Your task to perform on an android device: see creations saved in the google photos Image 0: 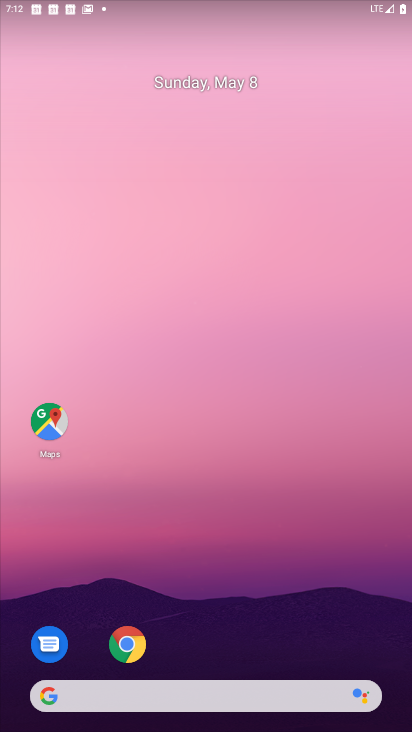
Step 0: drag from (364, 648) to (261, 179)
Your task to perform on an android device: see creations saved in the google photos Image 1: 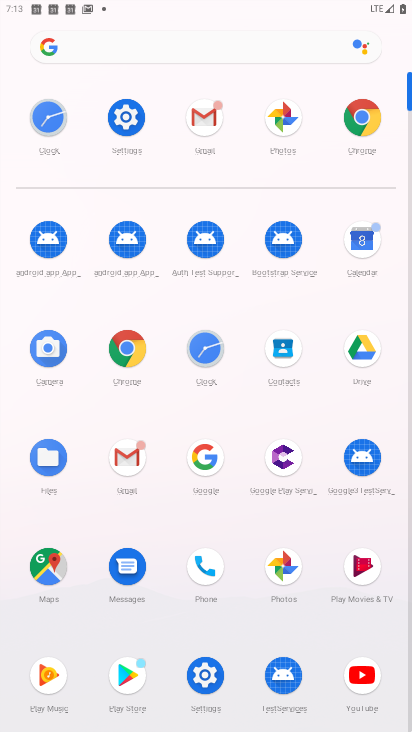
Step 1: click (285, 569)
Your task to perform on an android device: see creations saved in the google photos Image 2: 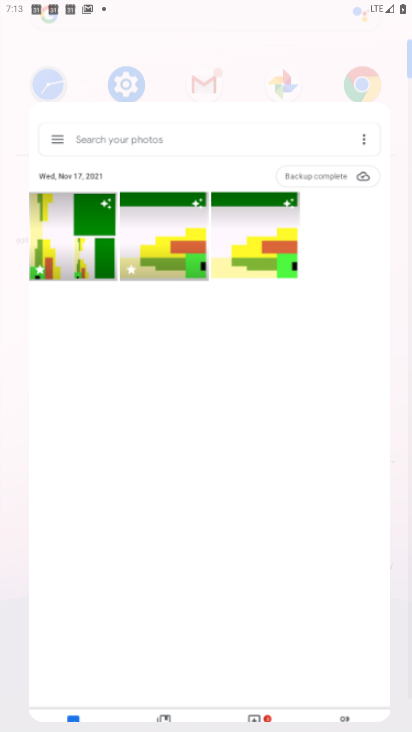
Step 2: click (285, 569)
Your task to perform on an android device: see creations saved in the google photos Image 3: 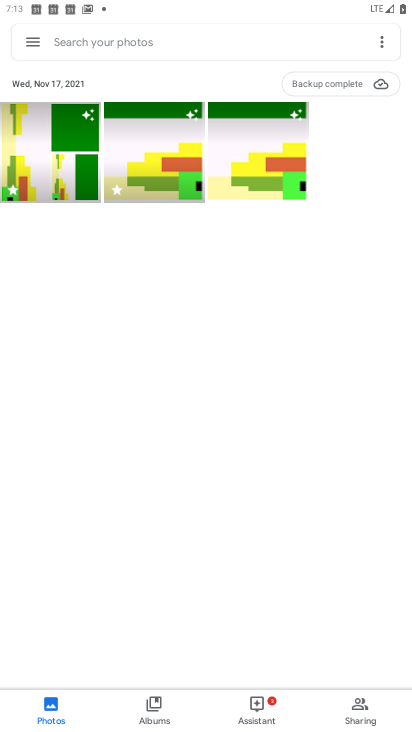
Step 3: click (124, 38)
Your task to perform on an android device: see creations saved in the google photos Image 4: 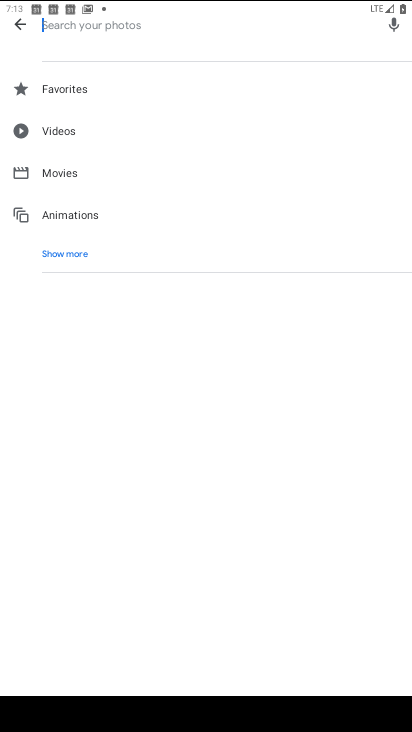
Step 4: click (57, 255)
Your task to perform on an android device: see creations saved in the google photos Image 5: 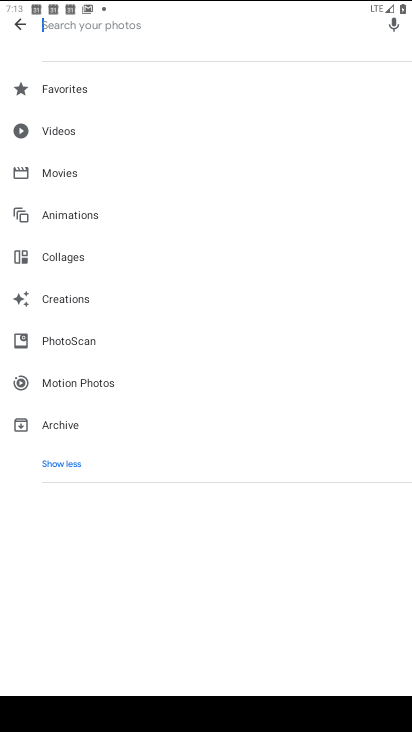
Step 5: click (81, 300)
Your task to perform on an android device: see creations saved in the google photos Image 6: 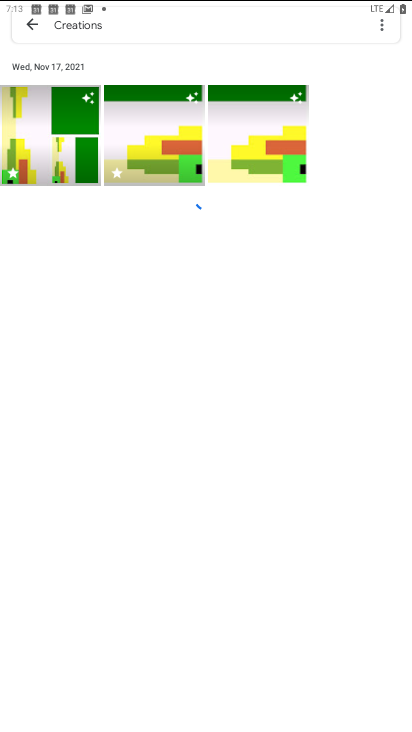
Step 6: task complete